Your task to perform on an android device: toggle wifi Image 0: 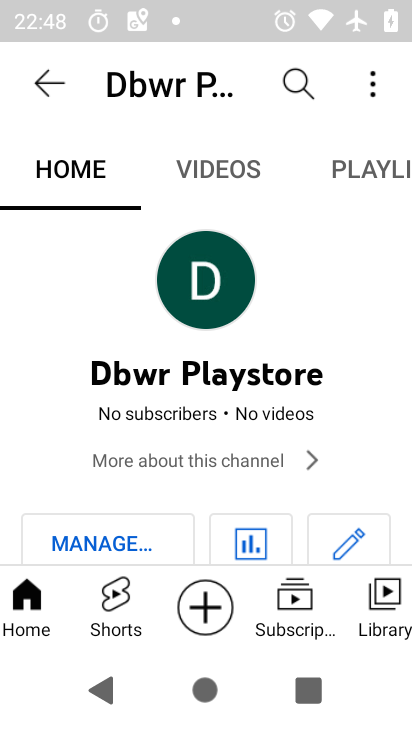
Step 0: press home button
Your task to perform on an android device: toggle wifi Image 1: 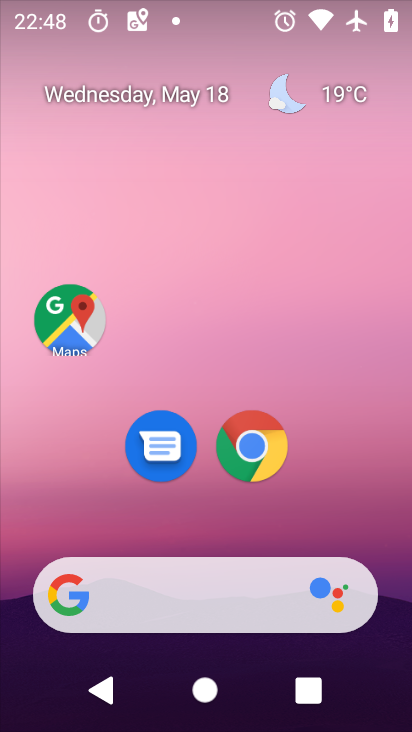
Step 1: drag from (191, 590) to (324, 67)
Your task to perform on an android device: toggle wifi Image 2: 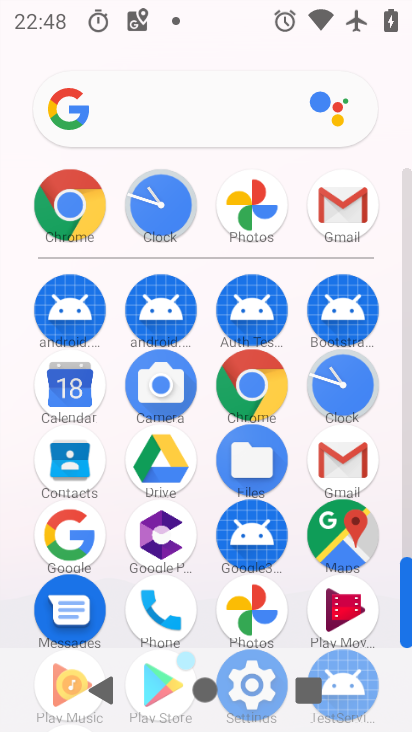
Step 2: drag from (202, 616) to (299, 346)
Your task to perform on an android device: toggle wifi Image 3: 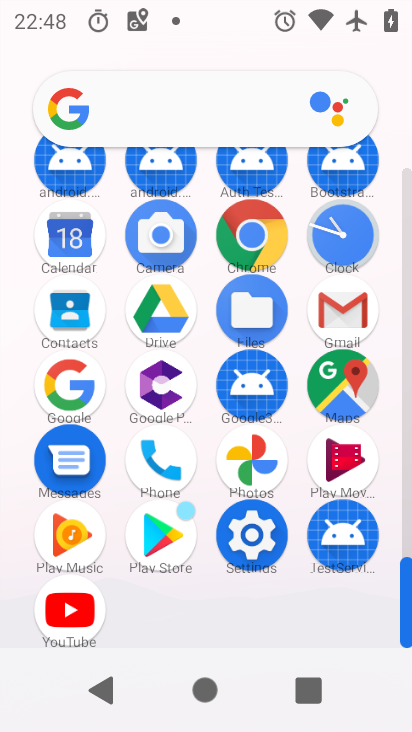
Step 3: click (264, 530)
Your task to perform on an android device: toggle wifi Image 4: 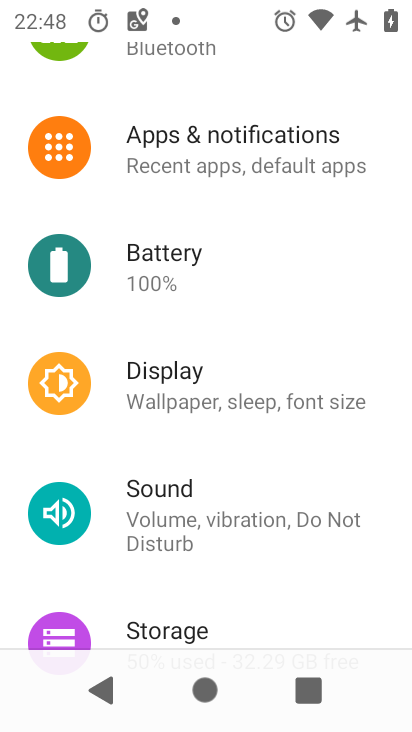
Step 4: drag from (273, 229) to (233, 636)
Your task to perform on an android device: toggle wifi Image 5: 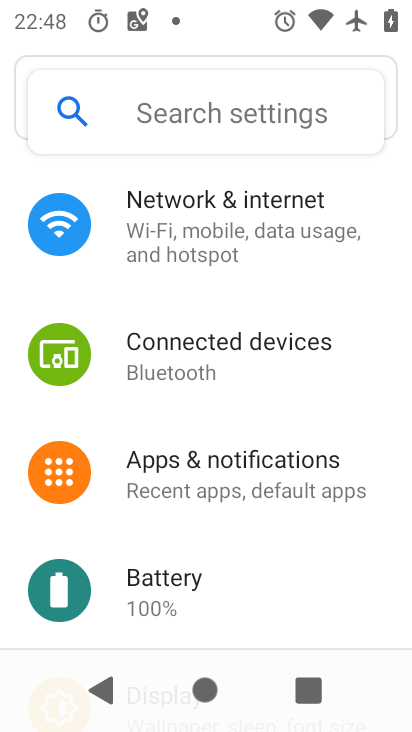
Step 5: click (233, 207)
Your task to perform on an android device: toggle wifi Image 6: 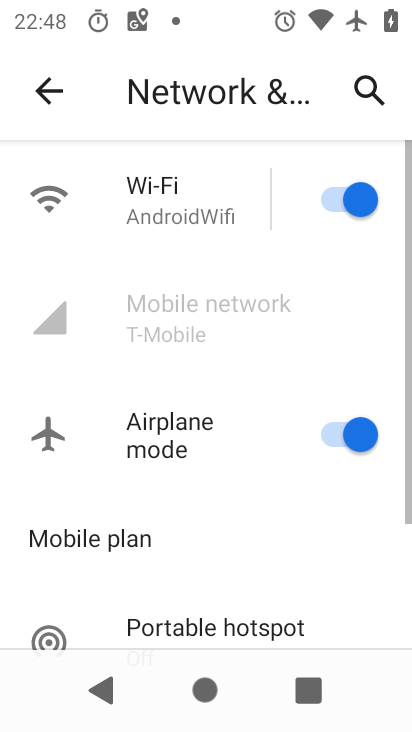
Step 6: click (193, 205)
Your task to perform on an android device: toggle wifi Image 7: 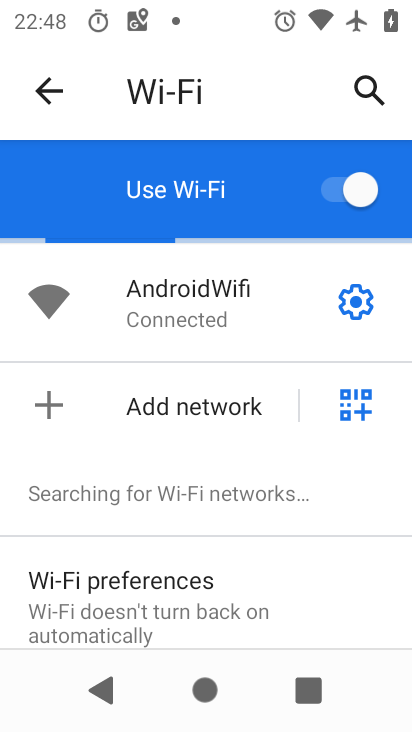
Step 7: click (337, 189)
Your task to perform on an android device: toggle wifi Image 8: 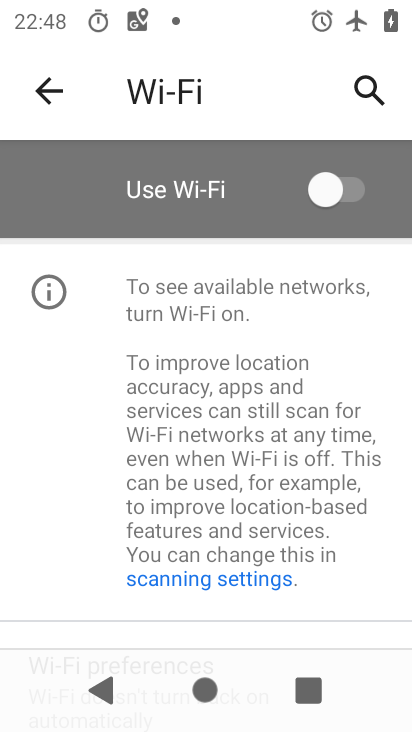
Step 8: task complete